Your task to perform on an android device: Go to Yahoo.com Image 0: 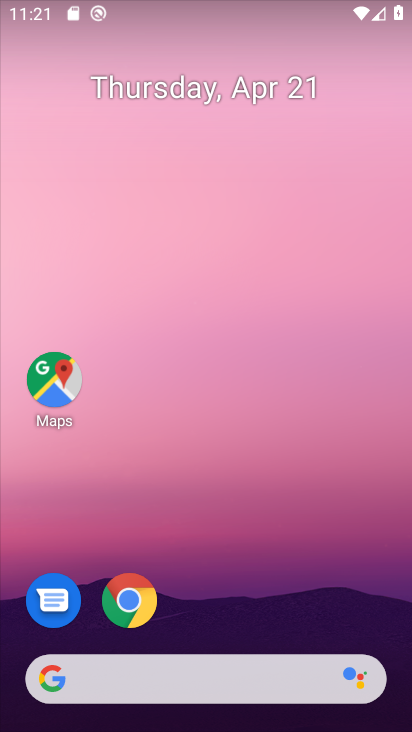
Step 0: click (138, 622)
Your task to perform on an android device: Go to Yahoo.com Image 1: 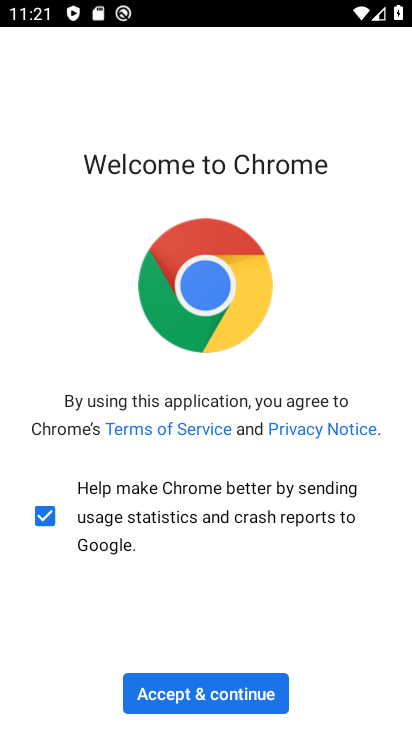
Step 1: click (245, 704)
Your task to perform on an android device: Go to Yahoo.com Image 2: 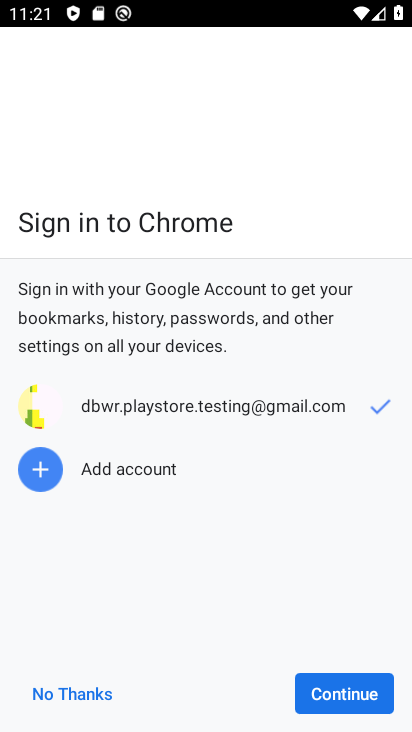
Step 2: click (339, 684)
Your task to perform on an android device: Go to Yahoo.com Image 3: 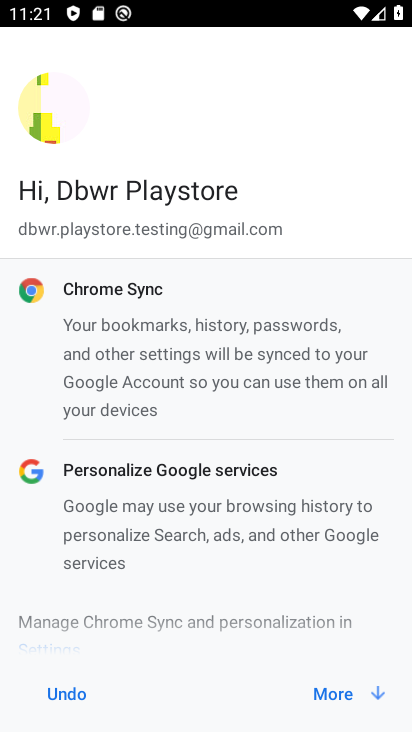
Step 3: click (339, 683)
Your task to perform on an android device: Go to Yahoo.com Image 4: 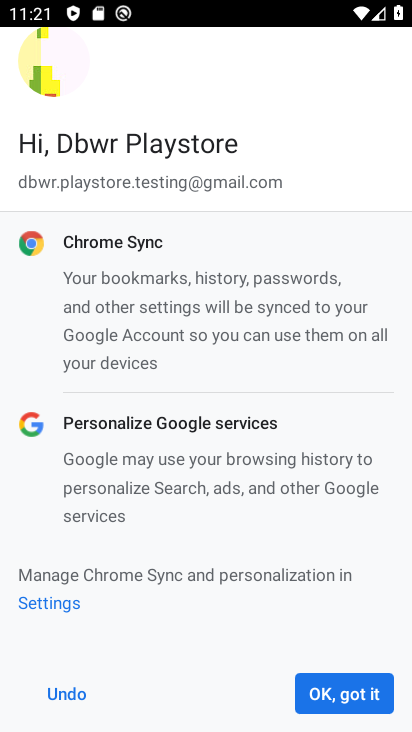
Step 4: click (340, 683)
Your task to perform on an android device: Go to Yahoo.com Image 5: 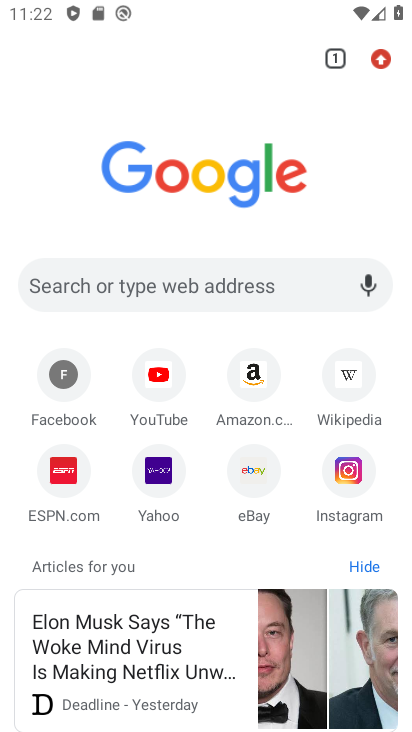
Step 5: click (158, 483)
Your task to perform on an android device: Go to Yahoo.com Image 6: 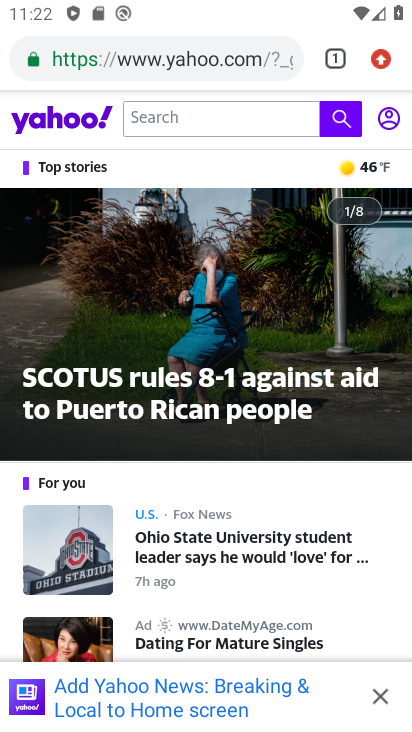
Step 6: task complete